Your task to perform on an android device: Add "logitech g pro" to the cart on amazon, then select checkout. Image 0: 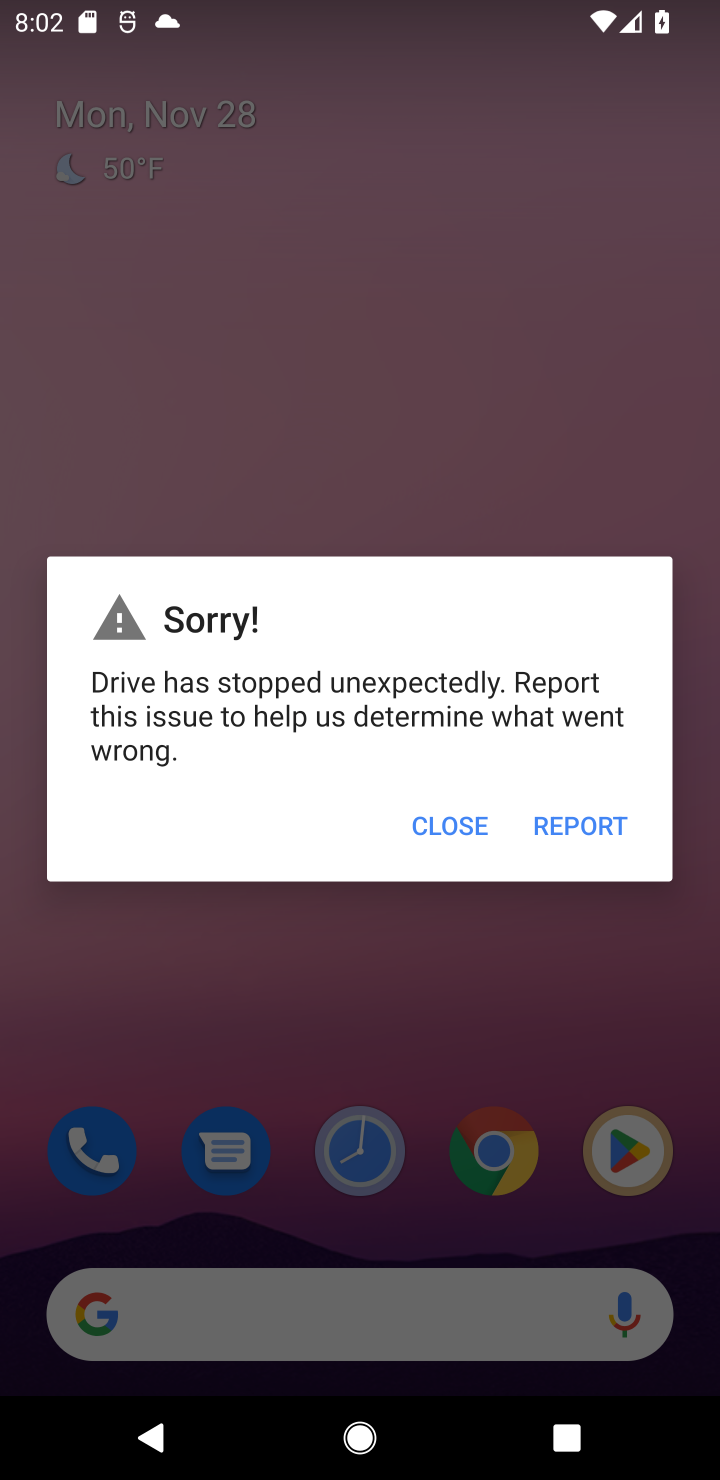
Step 0: click (429, 850)
Your task to perform on an android device: Add "logitech g pro" to the cart on amazon, then select checkout. Image 1: 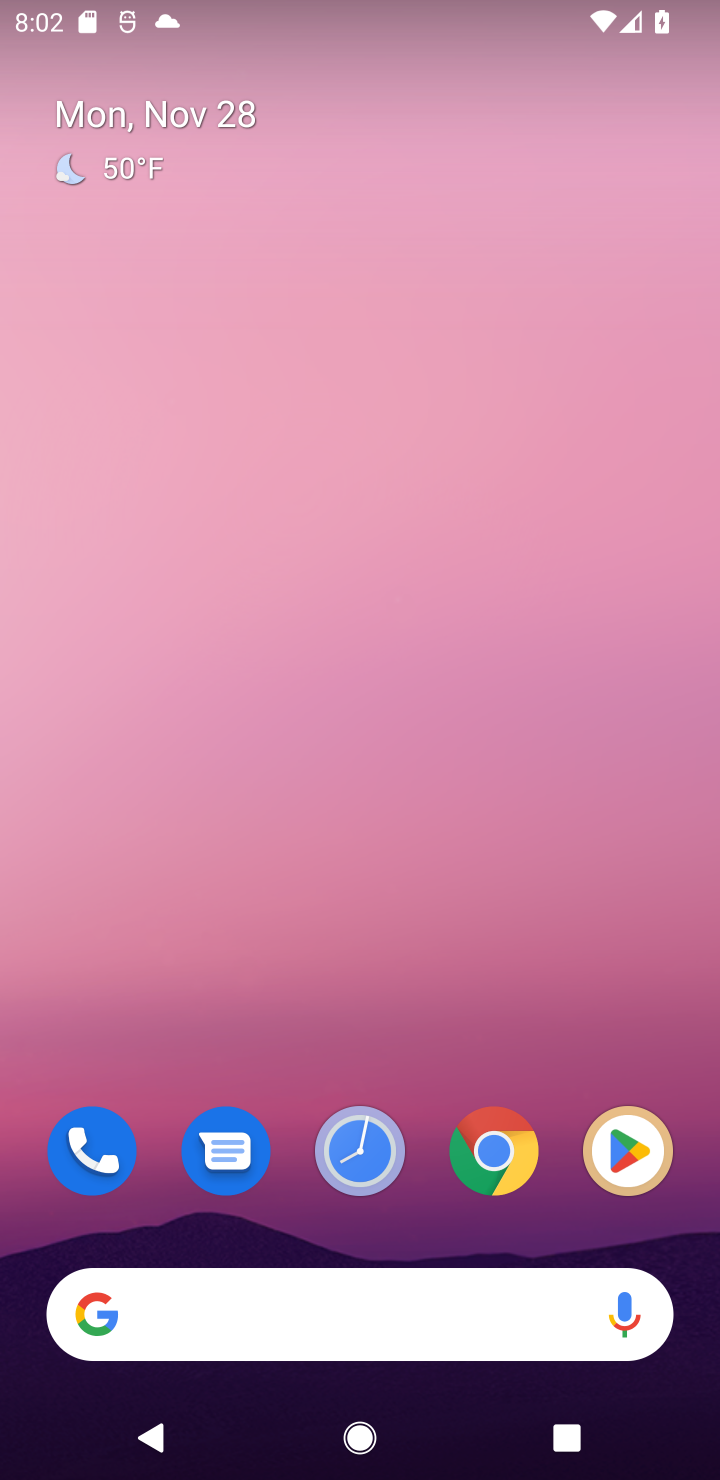
Step 1: click (342, 1301)
Your task to perform on an android device: Add "logitech g pro" to the cart on amazon, then select checkout. Image 2: 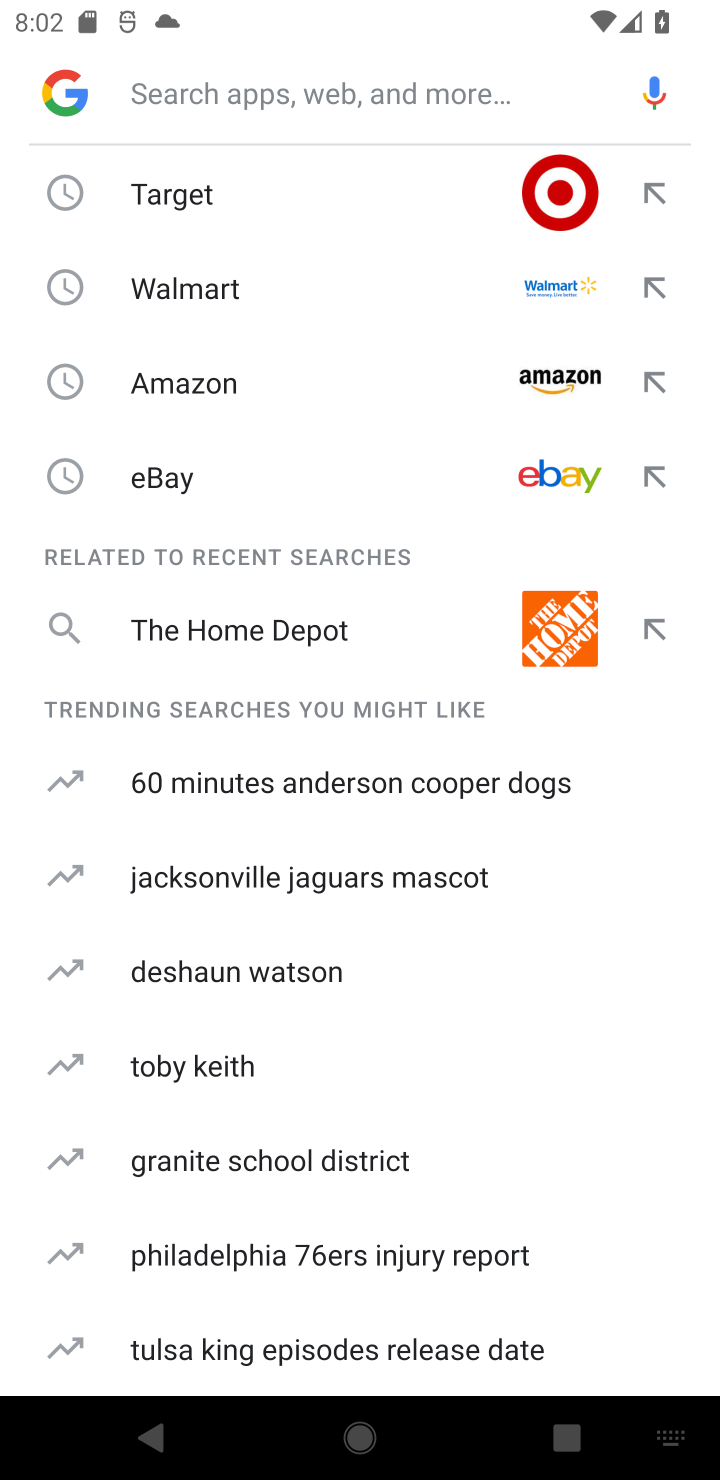
Step 2: type "logitech g pro"
Your task to perform on an android device: Add "logitech g pro" to the cart on amazon, then select checkout. Image 3: 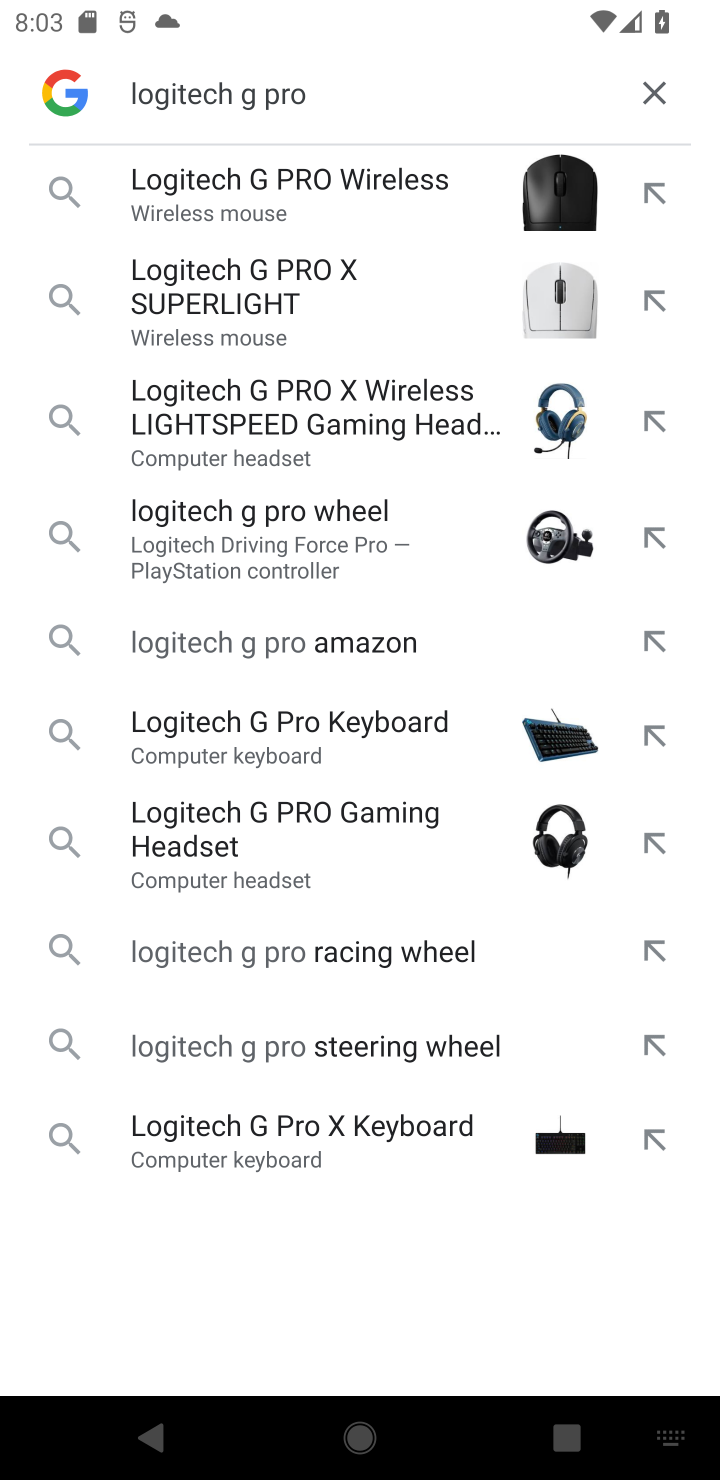
Step 3: click (225, 217)
Your task to perform on an android device: Add "logitech g pro" to the cart on amazon, then select checkout. Image 4: 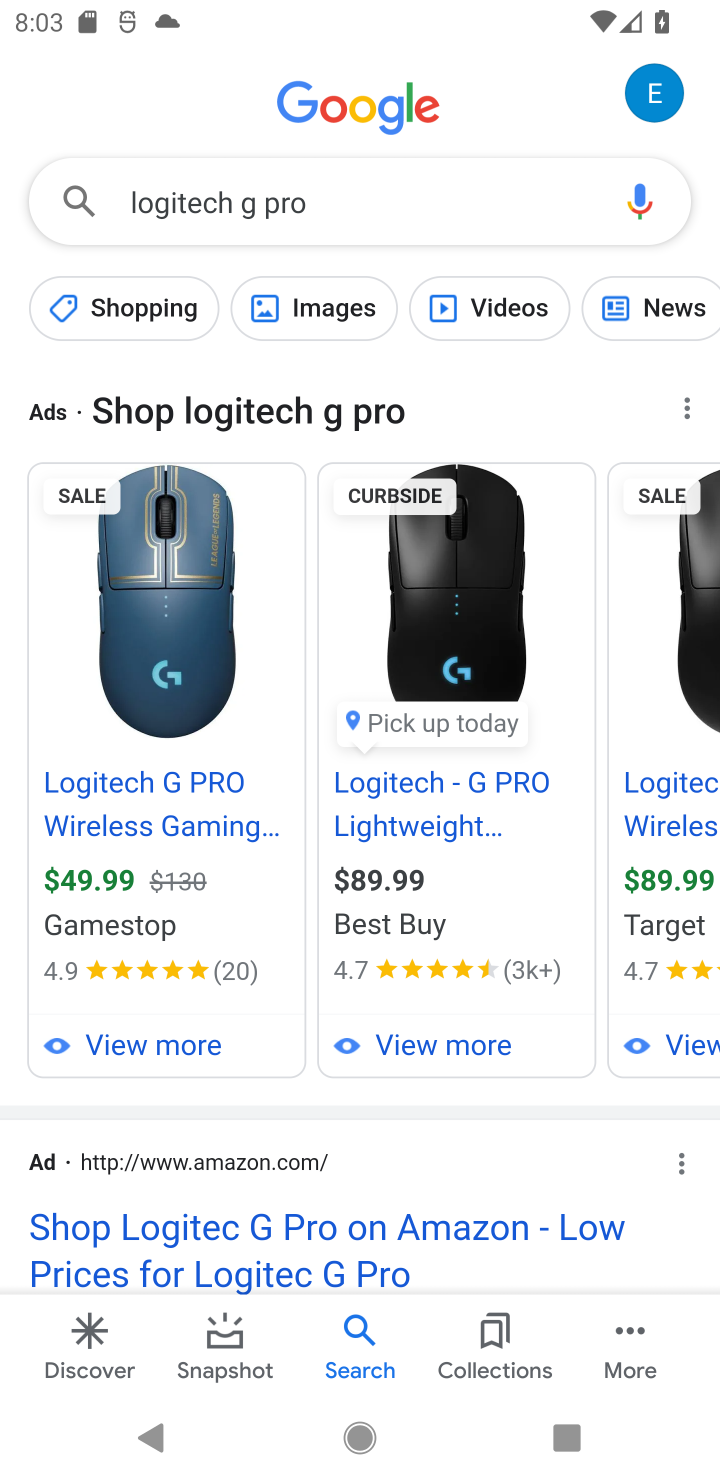
Step 4: click (175, 1250)
Your task to perform on an android device: Add "logitech g pro" to the cart on amazon, then select checkout. Image 5: 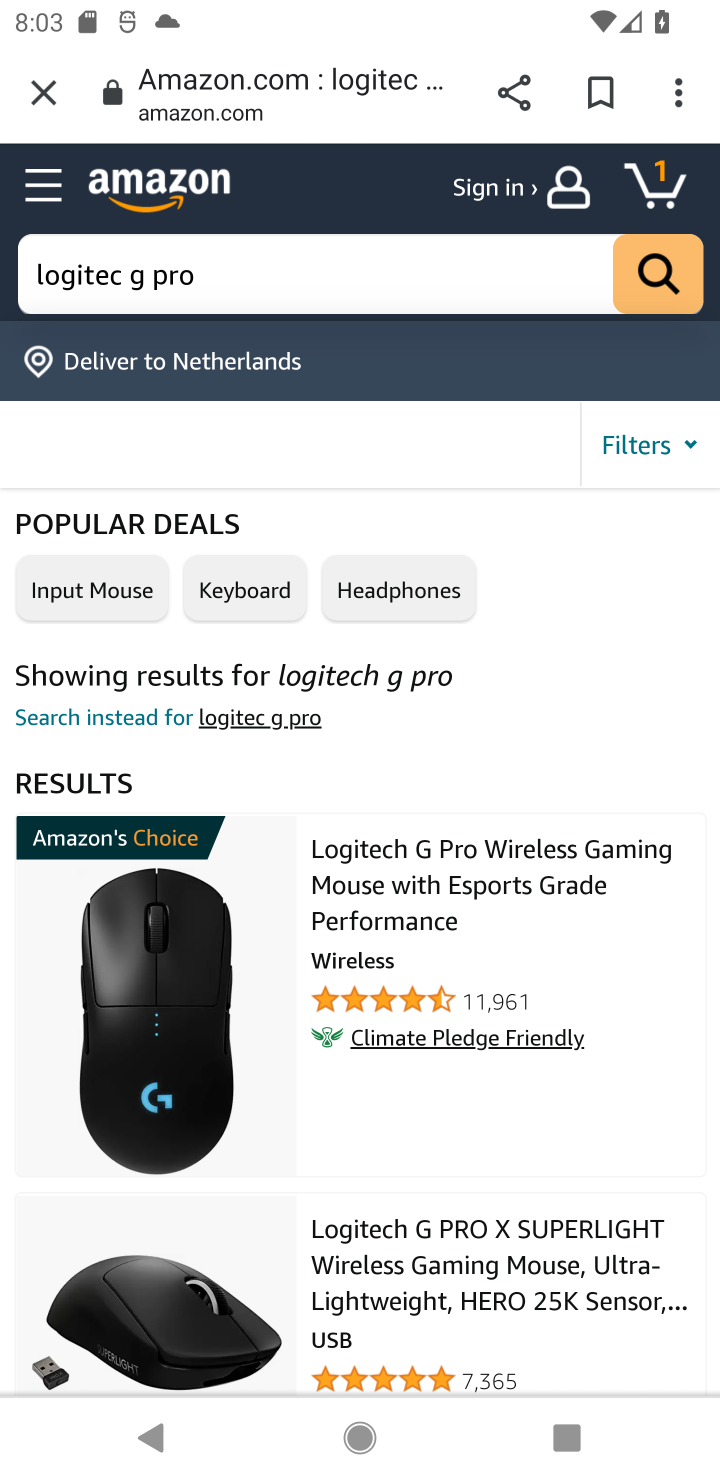
Step 5: click (421, 919)
Your task to perform on an android device: Add "logitech g pro" to the cart on amazon, then select checkout. Image 6: 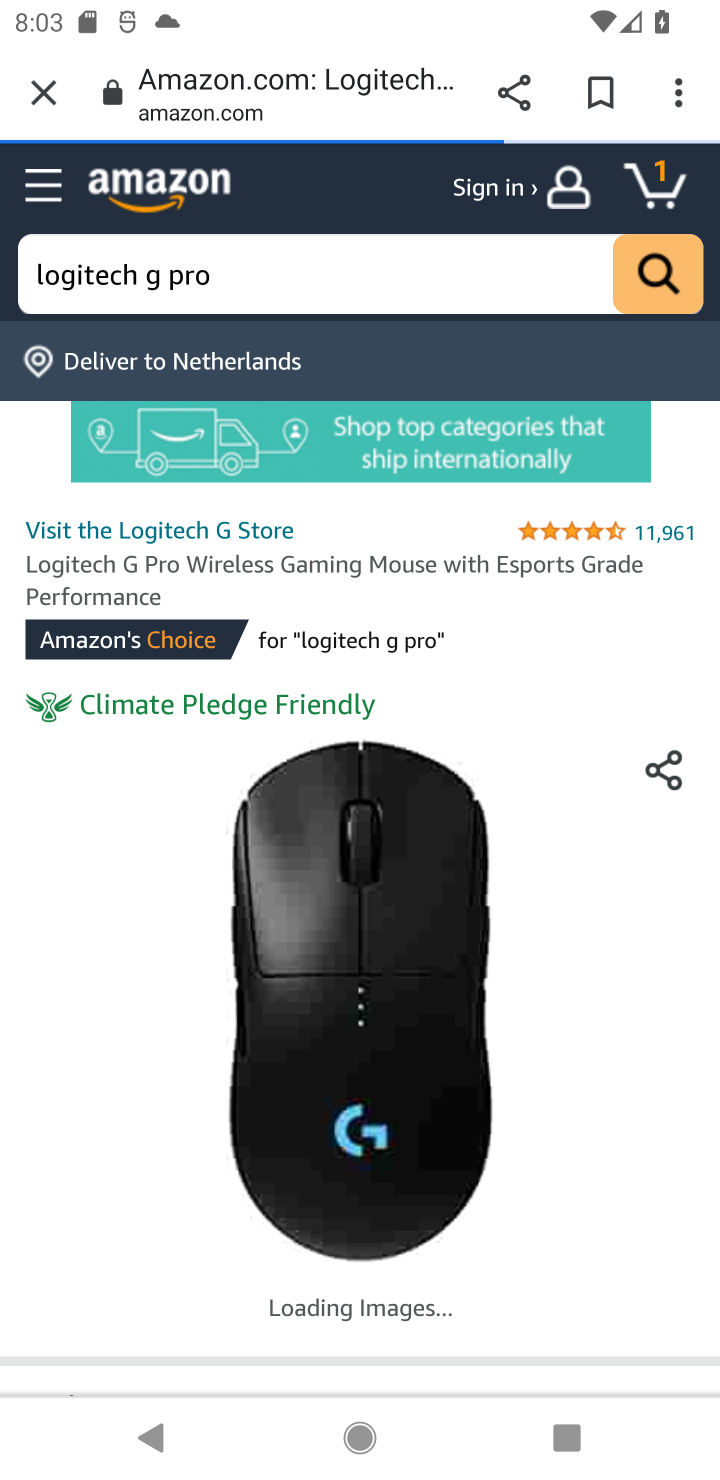
Step 6: task complete